Your task to perform on an android device: delete browsing data in the chrome app Image 0: 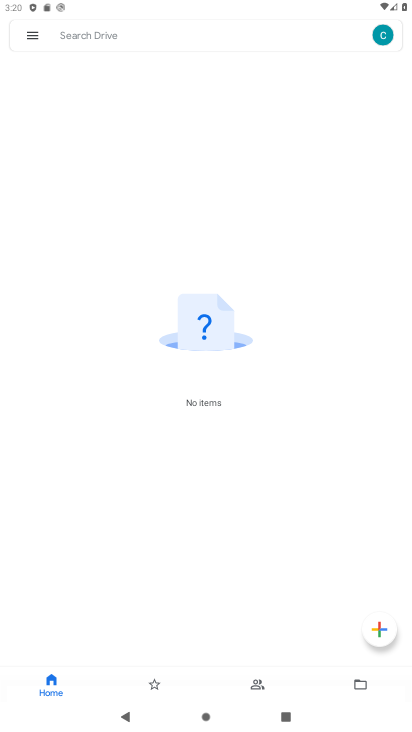
Step 0: press home button
Your task to perform on an android device: delete browsing data in the chrome app Image 1: 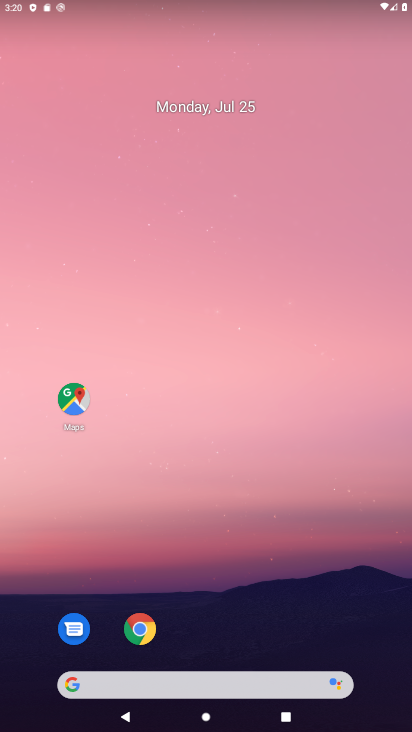
Step 1: drag from (275, 691) to (259, 0)
Your task to perform on an android device: delete browsing data in the chrome app Image 2: 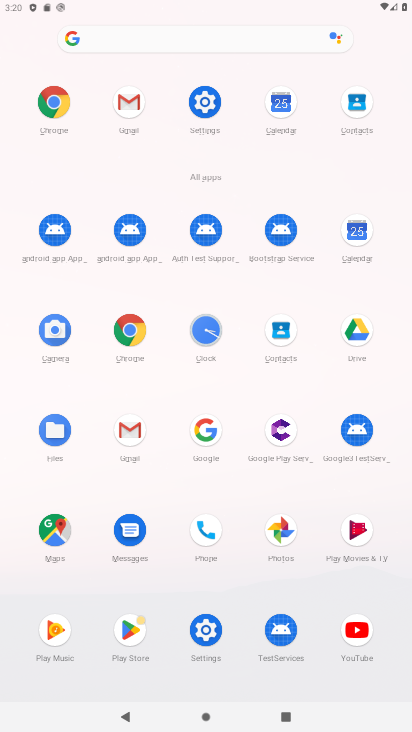
Step 2: click (130, 312)
Your task to perform on an android device: delete browsing data in the chrome app Image 3: 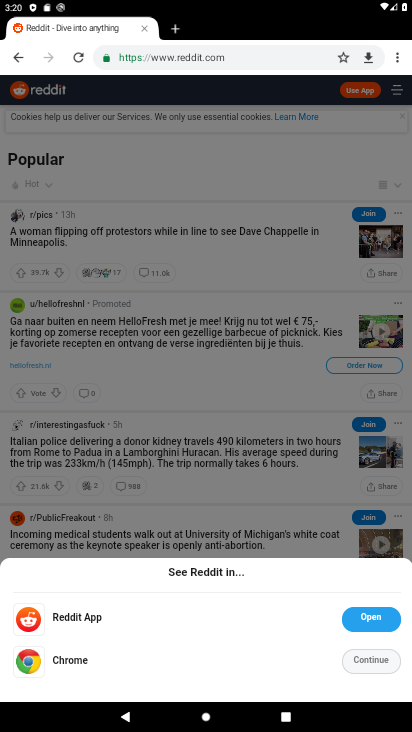
Step 3: drag from (403, 50) to (347, 177)
Your task to perform on an android device: delete browsing data in the chrome app Image 4: 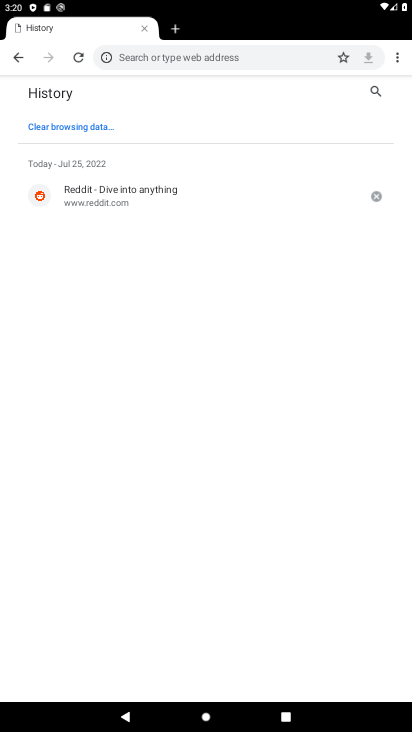
Step 4: click (65, 137)
Your task to perform on an android device: delete browsing data in the chrome app Image 5: 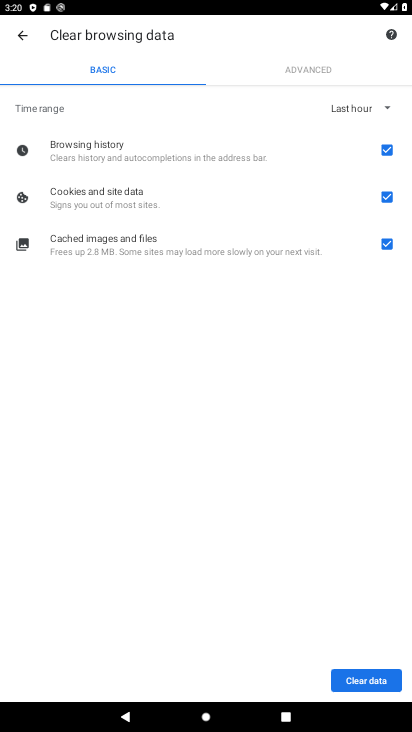
Step 5: click (378, 679)
Your task to perform on an android device: delete browsing data in the chrome app Image 6: 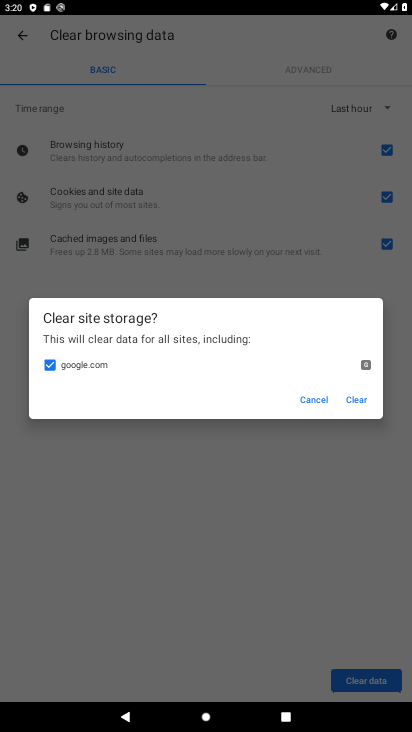
Step 6: click (364, 402)
Your task to perform on an android device: delete browsing data in the chrome app Image 7: 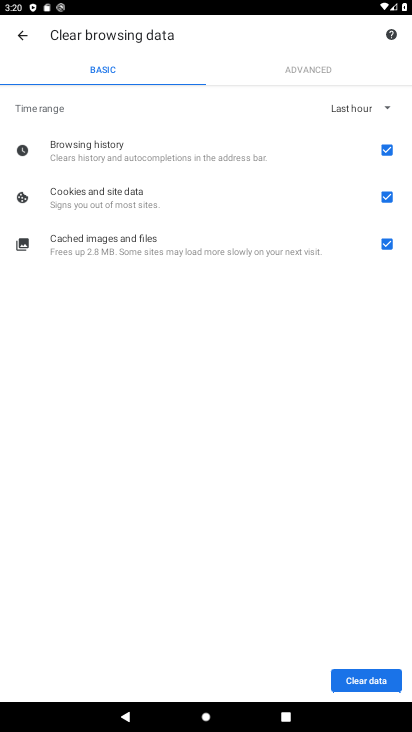
Step 7: task complete